Your task to perform on an android device: make emails show in primary in the gmail app Image 0: 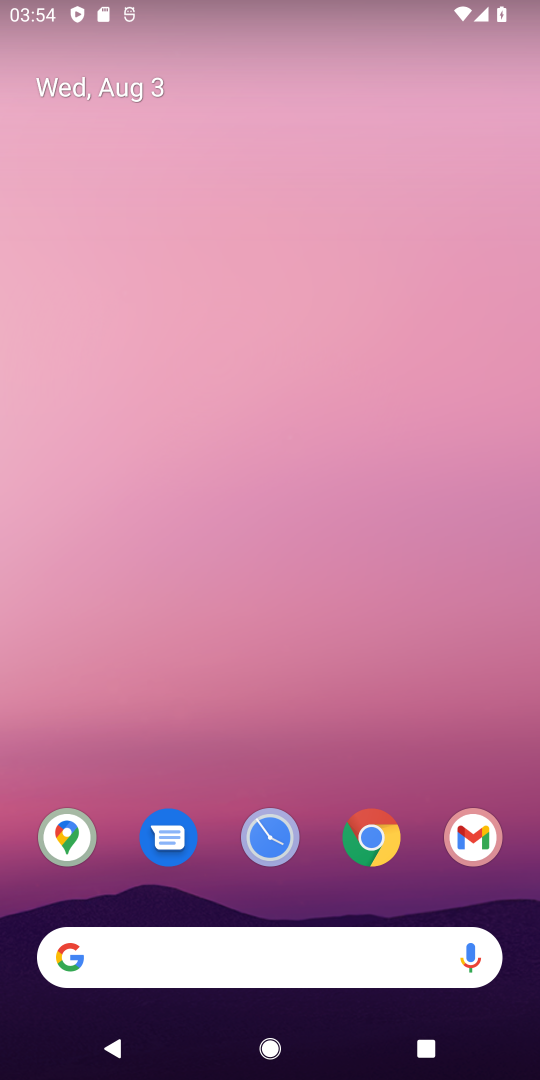
Step 0: click (474, 839)
Your task to perform on an android device: make emails show in primary in the gmail app Image 1: 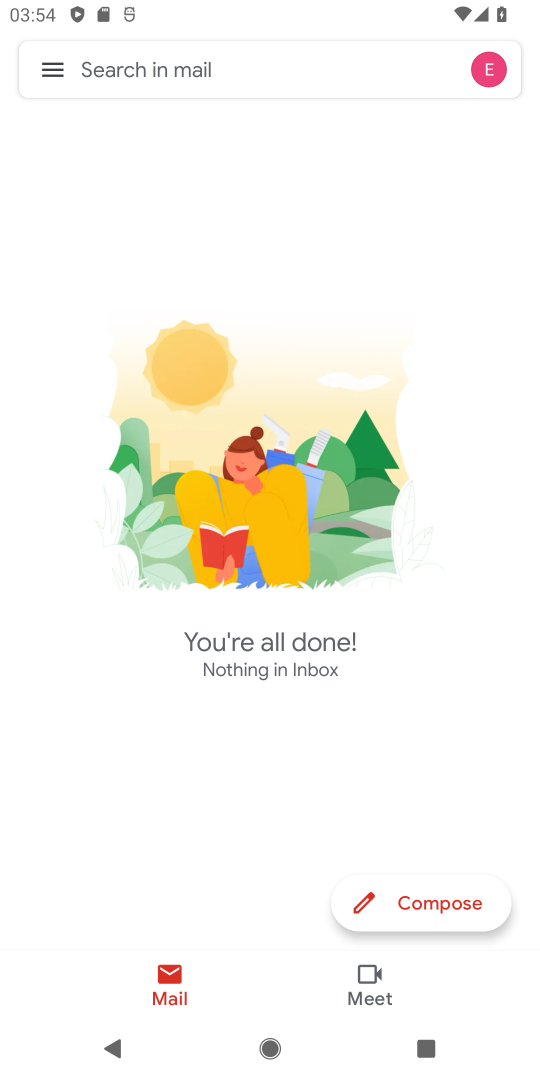
Step 1: click (50, 70)
Your task to perform on an android device: make emails show in primary in the gmail app Image 2: 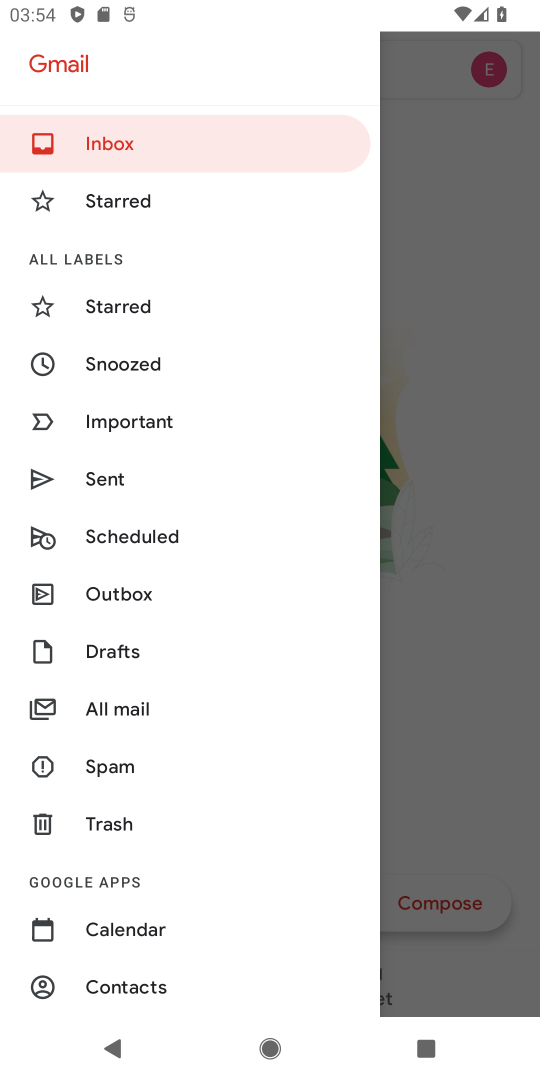
Step 2: drag from (283, 797) to (280, 183)
Your task to perform on an android device: make emails show in primary in the gmail app Image 3: 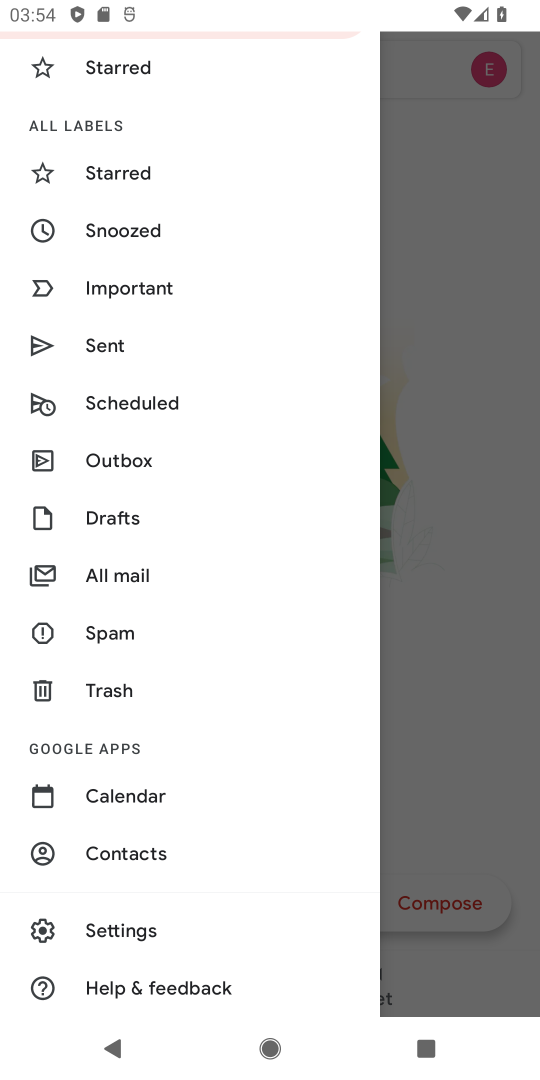
Step 3: click (105, 920)
Your task to perform on an android device: make emails show in primary in the gmail app Image 4: 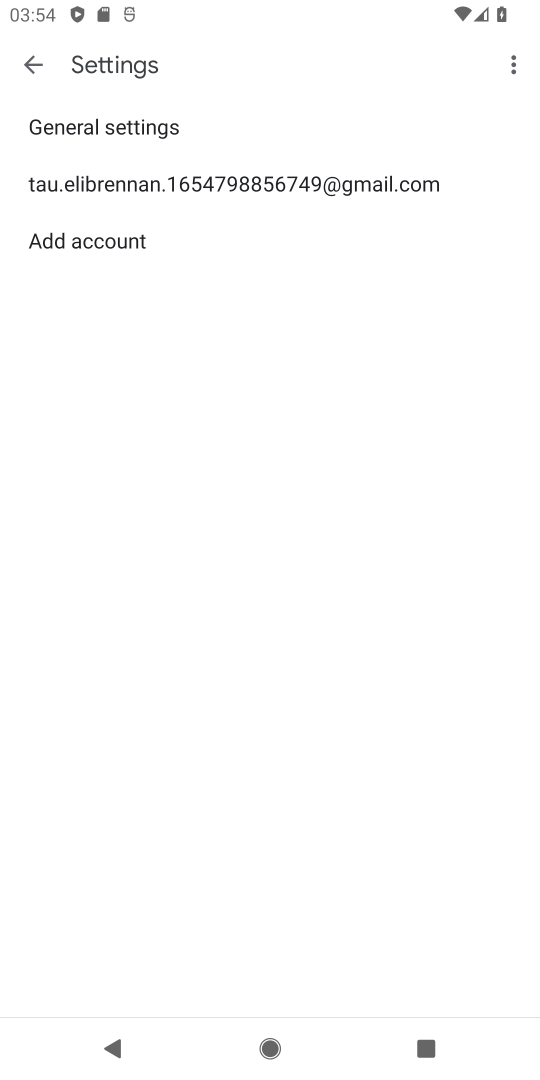
Step 4: click (153, 178)
Your task to perform on an android device: make emails show in primary in the gmail app Image 5: 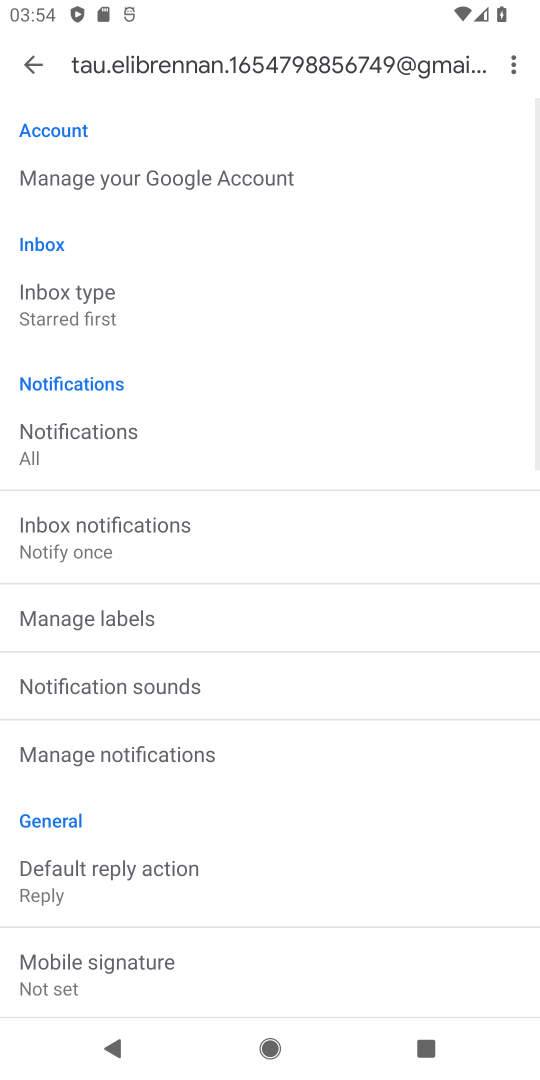
Step 5: click (83, 309)
Your task to perform on an android device: make emails show in primary in the gmail app Image 6: 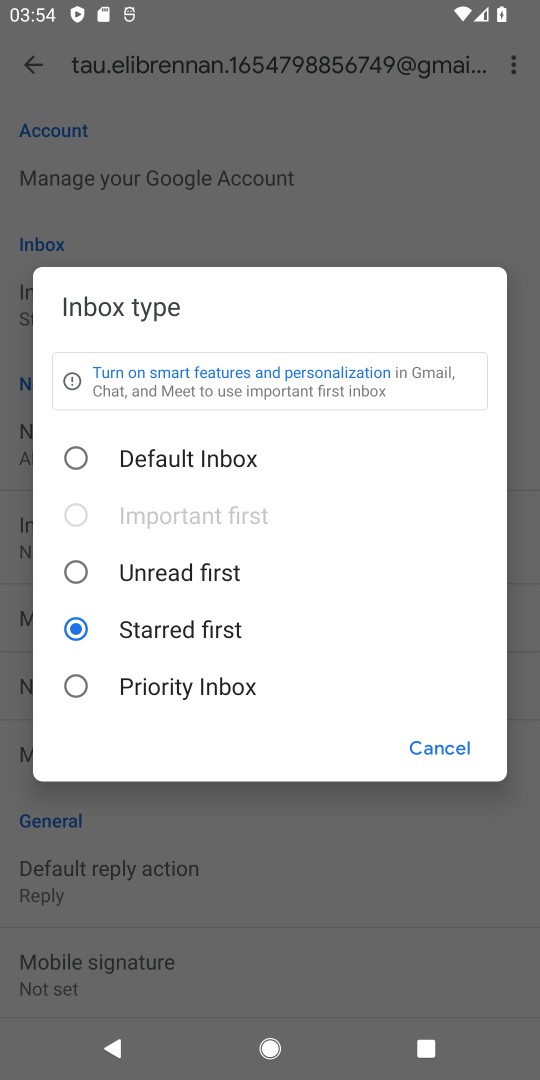
Step 6: click (73, 457)
Your task to perform on an android device: make emails show in primary in the gmail app Image 7: 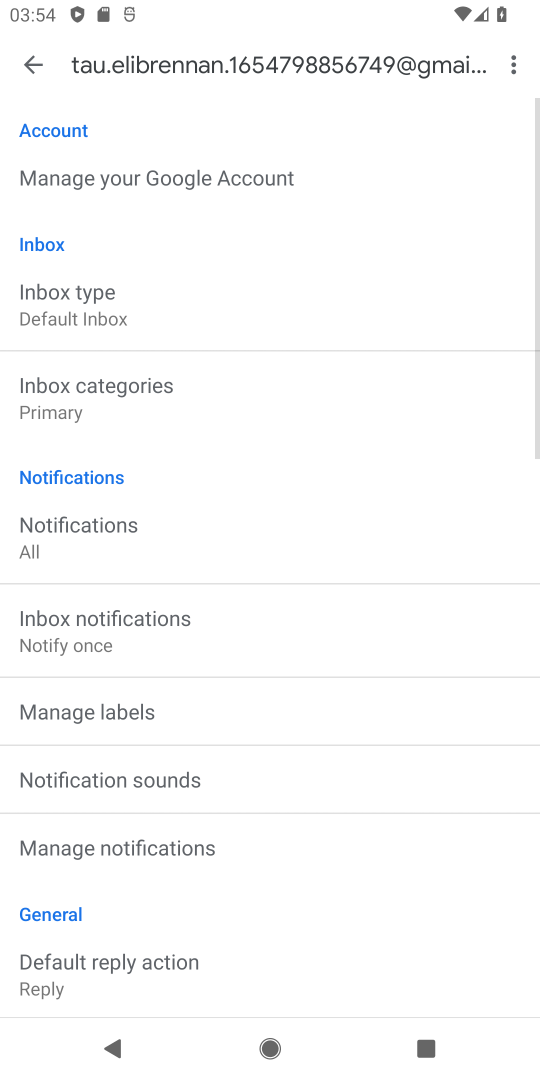
Step 7: click (78, 379)
Your task to perform on an android device: make emails show in primary in the gmail app Image 8: 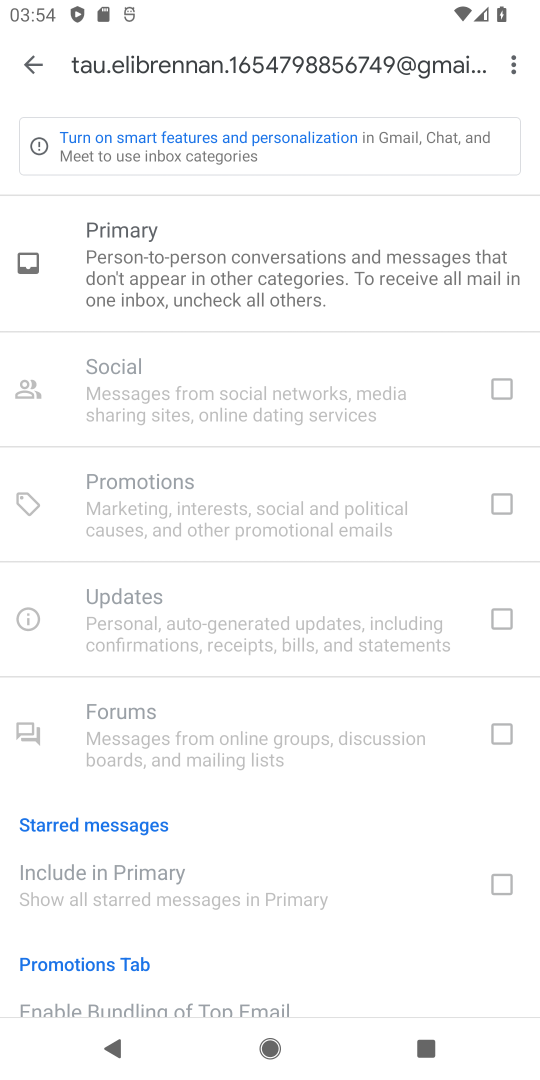
Step 8: task complete